Your task to perform on an android device: Open Wikipedia Image 0: 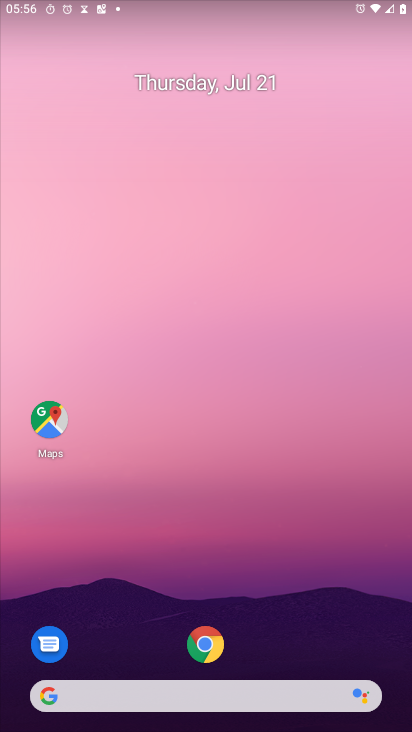
Step 0: click (45, 700)
Your task to perform on an android device: Open Wikipedia Image 1: 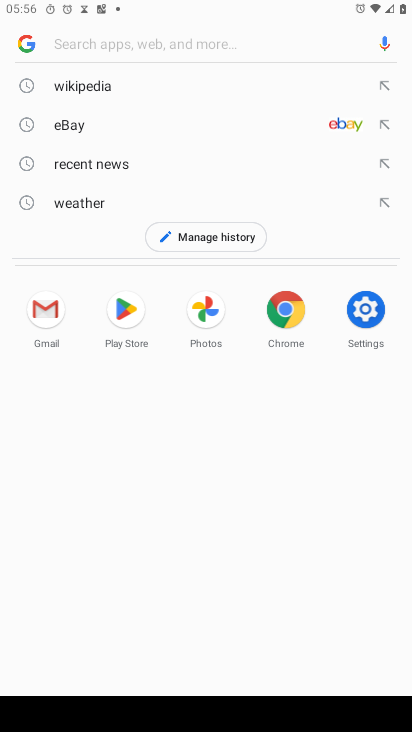
Step 1: type "Wikipedia"
Your task to perform on an android device: Open Wikipedia Image 2: 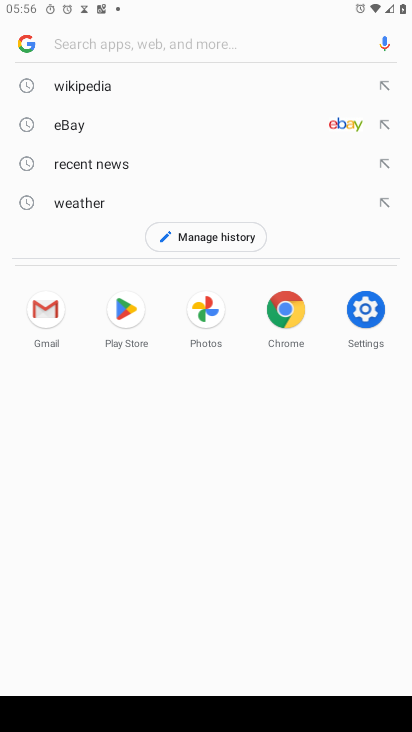
Step 2: click (99, 44)
Your task to perform on an android device: Open Wikipedia Image 3: 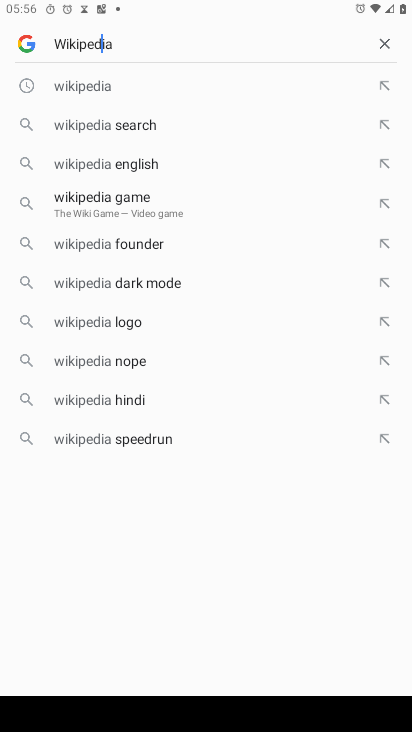
Step 3: press enter
Your task to perform on an android device: Open Wikipedia Image 4: 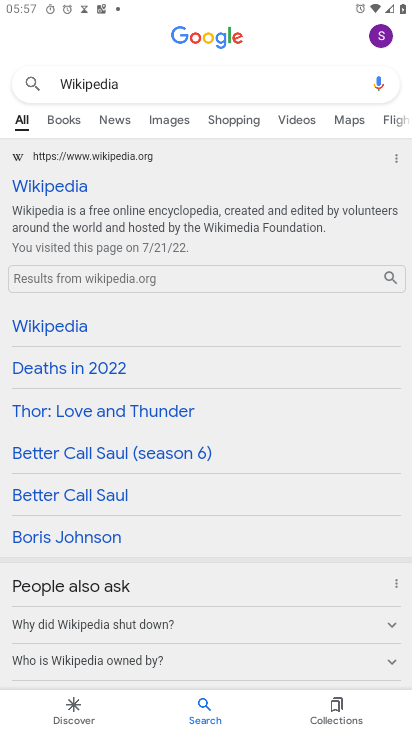
Step 4: click (67, 185)
Your task to perform on an android device: Open Wikipedia Image 5: 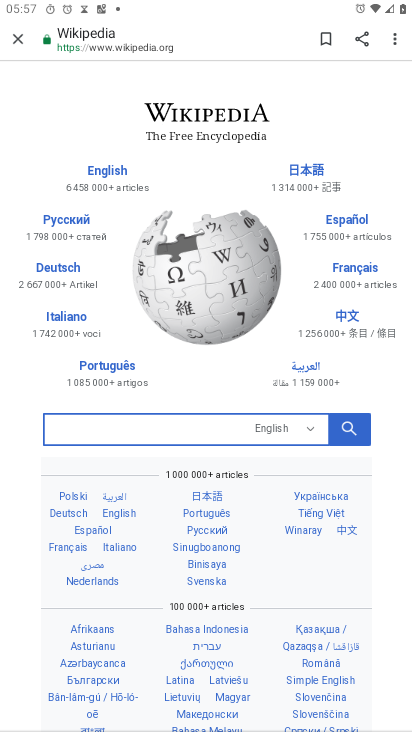
Step 5: task complete